Your task to perform on an android device: open app "Google Keep" Image 0: 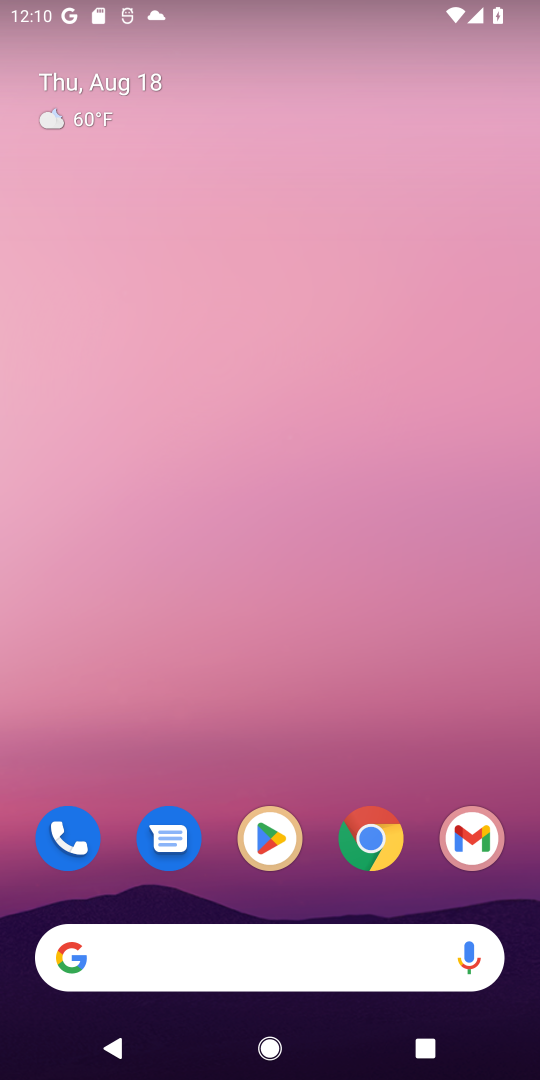
Step 0: click (287, 829)
Your task to perform on an android device: open app "Google Keep" Image 1: 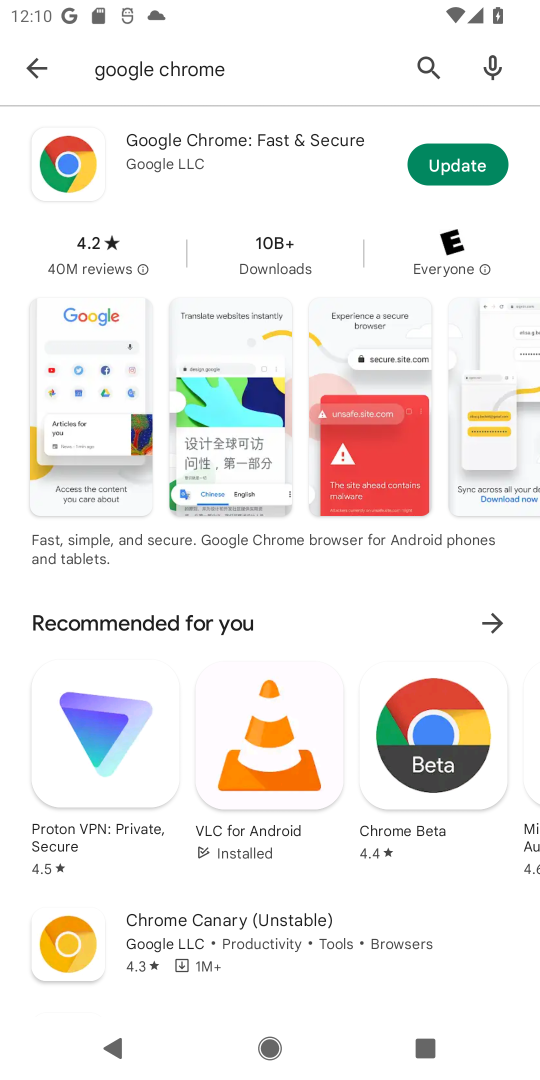
Step 1: click (465, 62)
Your task to perform on an android device: open app "Google Keep" Image 2: 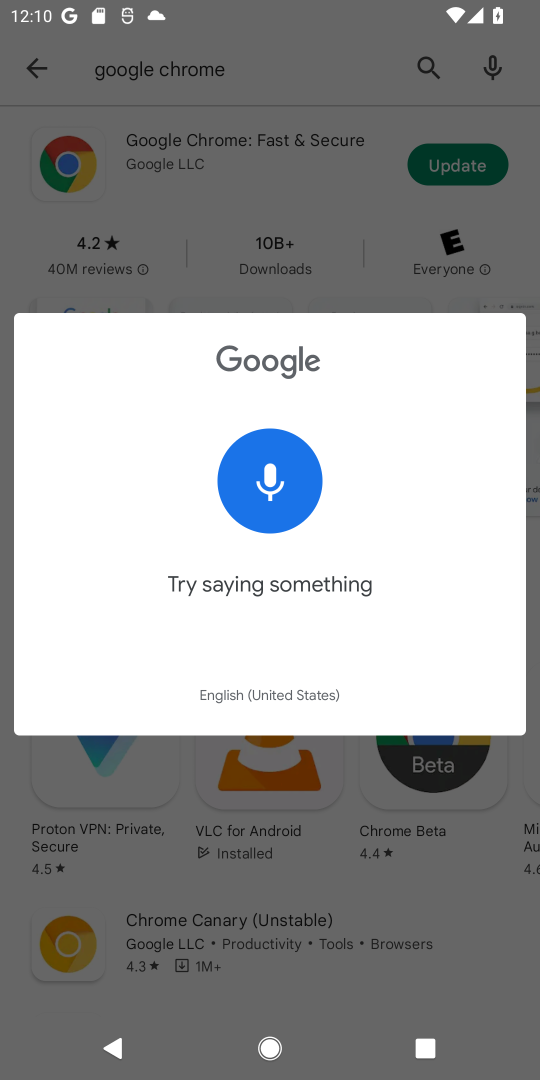
Step 2: click (270, 69)
Your task to perform on an android device: open app "Google Keep" Image 3: 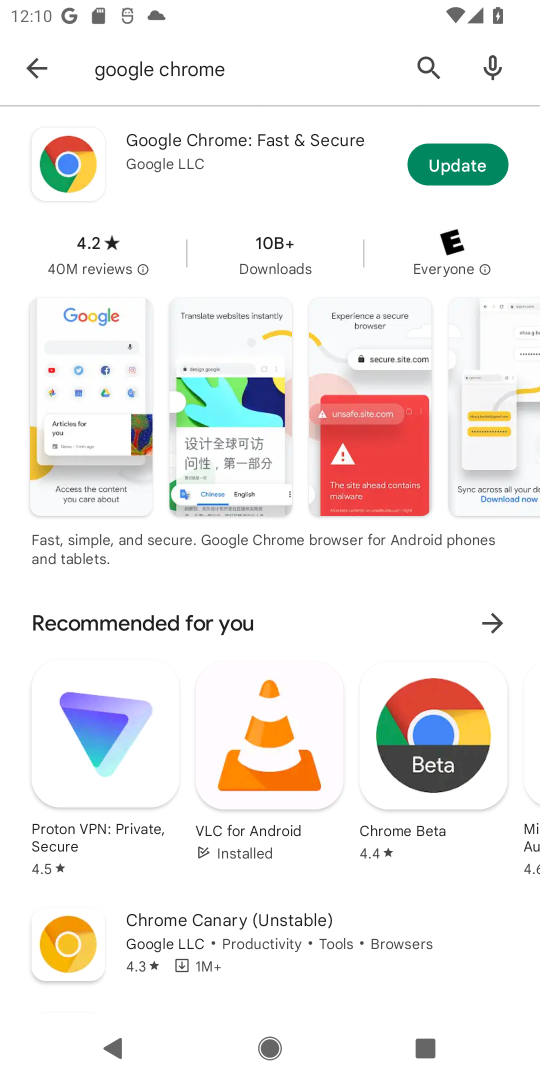
Step 3: click (419, 73)
Your task to perform on an android device: open app "Google Keep" Image 4: 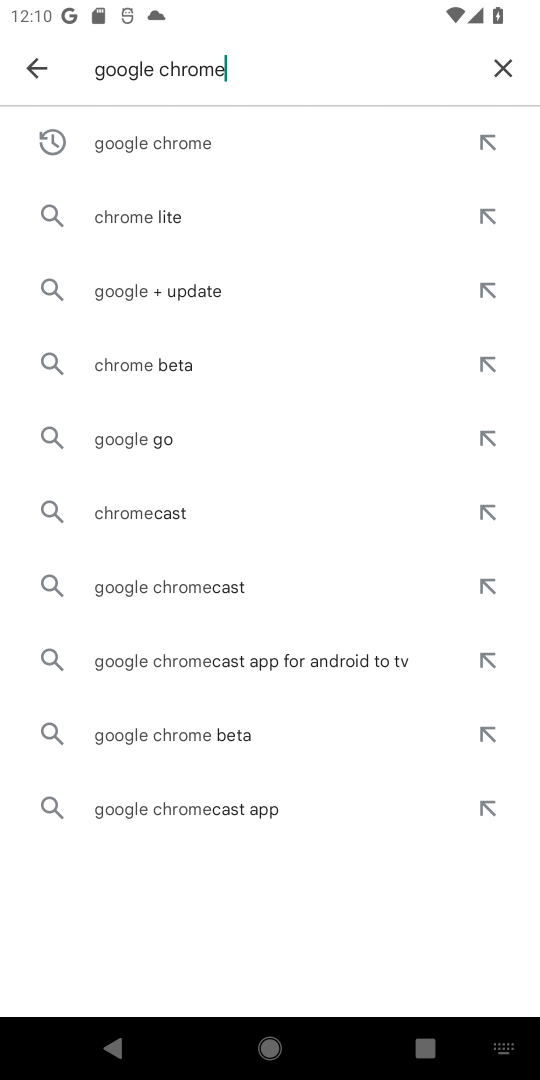
Step 4: click (496, 61)
Your task to perform on an android device: open app "Google Keep" Image 5: 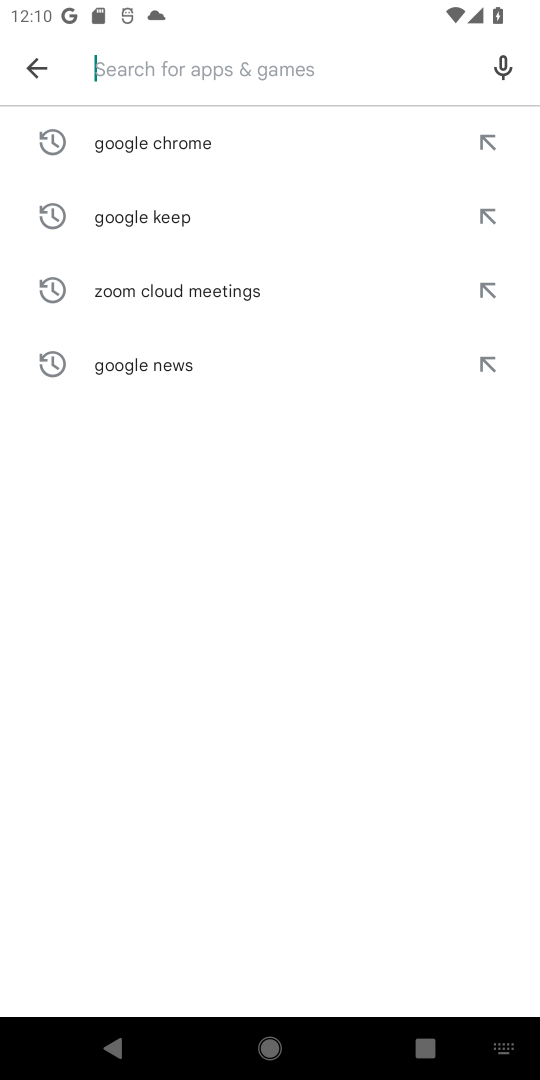
Step 5: type "Google Keep"
Your task to perform on an android device: open app "Google Keep" Image 6: 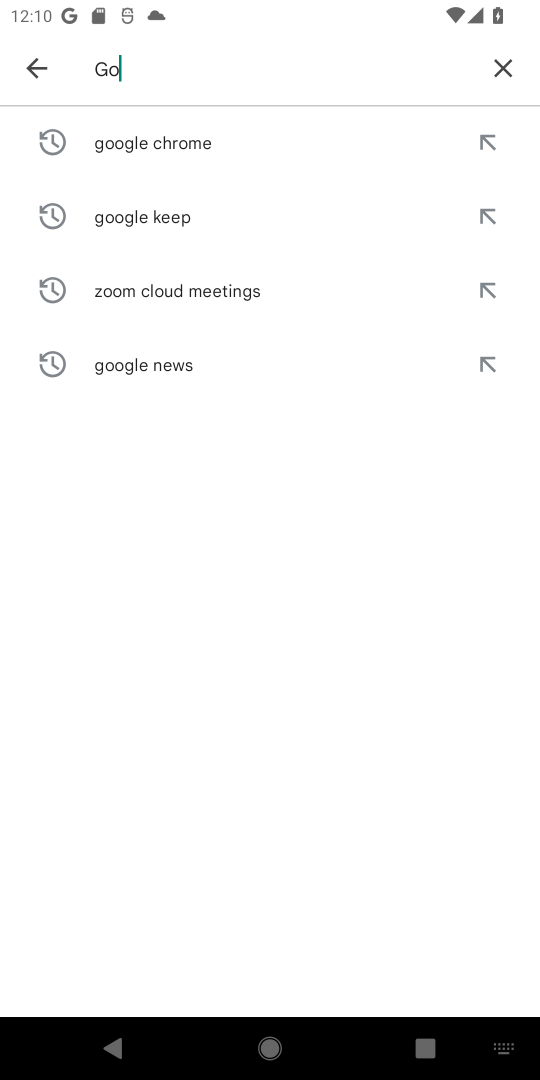
Step 6: type ""
Your task to perform on an android device: open app "Google Keep" Image 7: 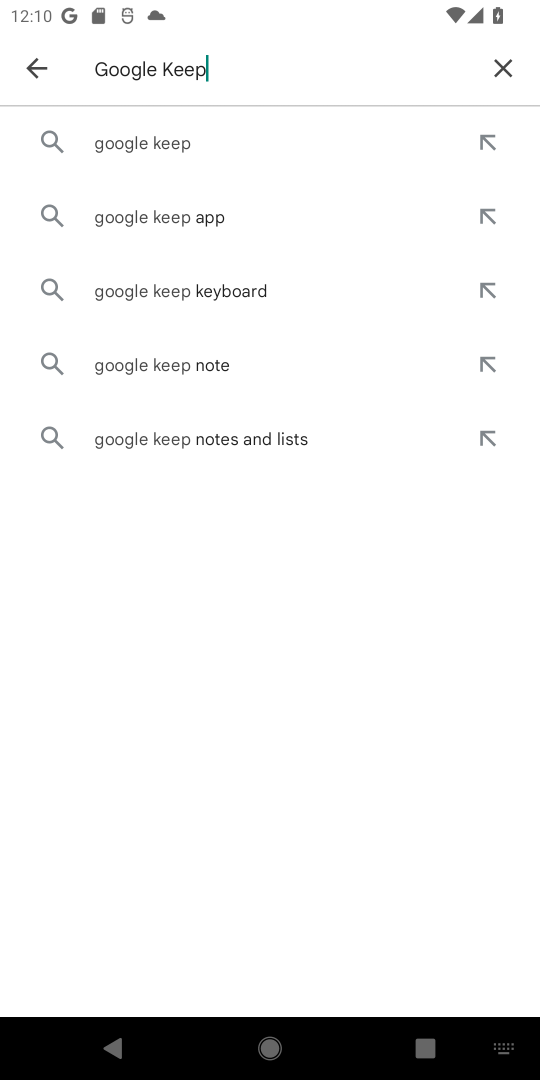
Step 7: click (189, 143)
Your task to perform on an android device: open app "Google Keep" Image 8: 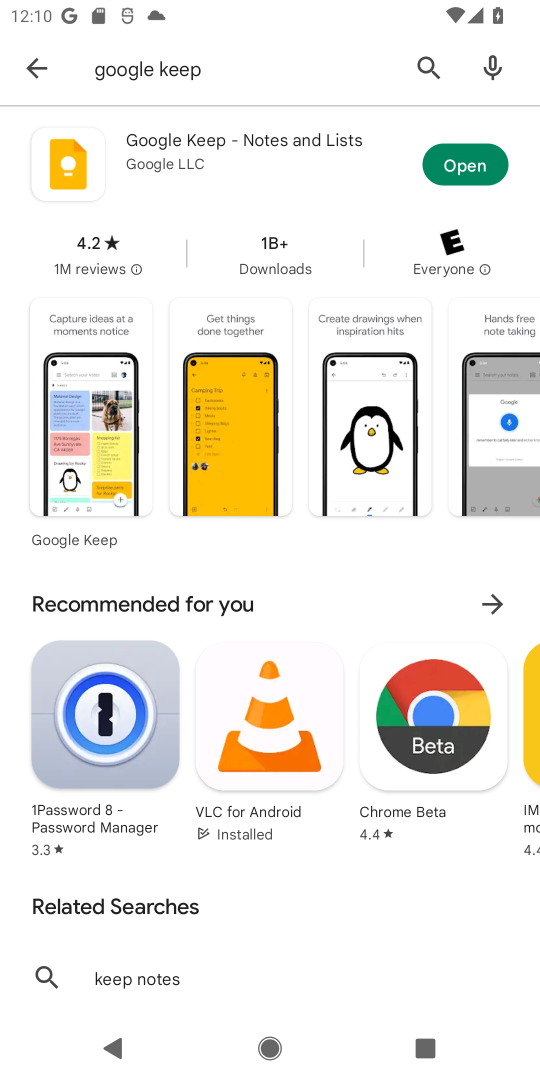
Step 8: click (470, 174)
Your task to perform on an android device: open app "Google Keep" Image 9: 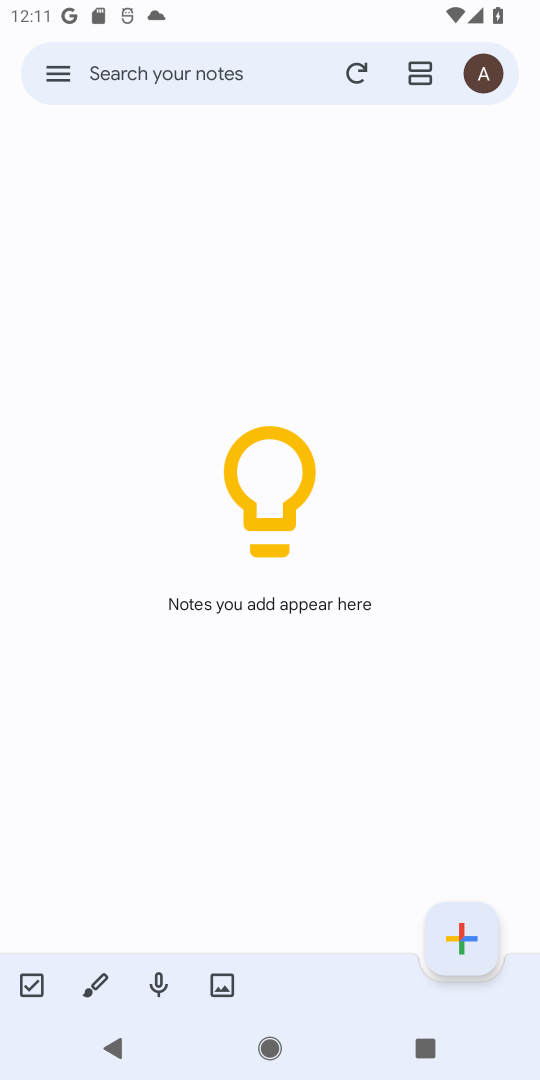
Step 9: task complete